Your task to perform on an android device: Open the map Image 0: 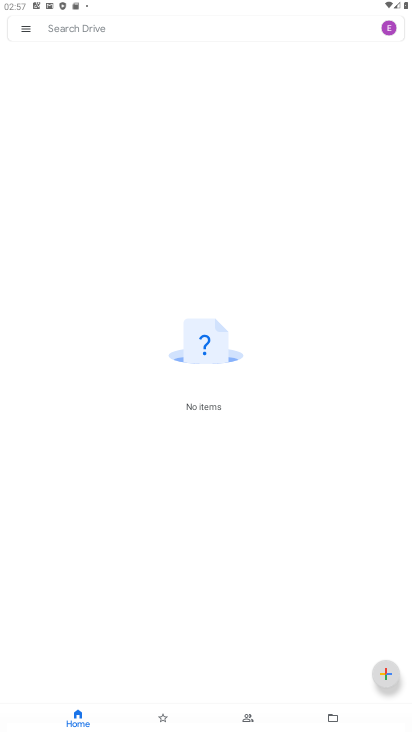
Step 0: press home button
Your task to perform on an android device: Open the map Image 1: 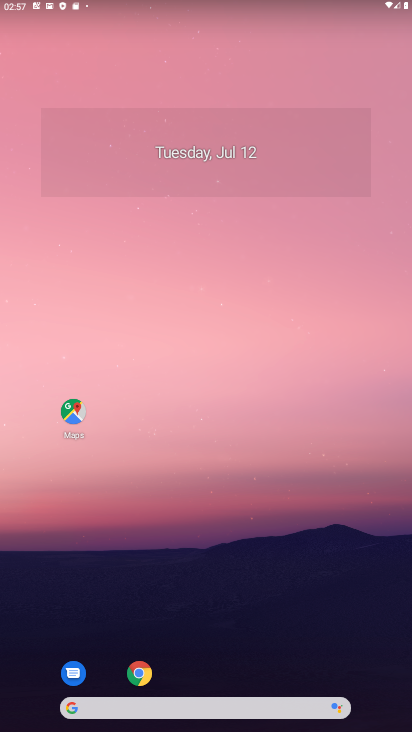
Step 1: click (74, 412)
Your task to perform on an android device: Open the map Image 2: 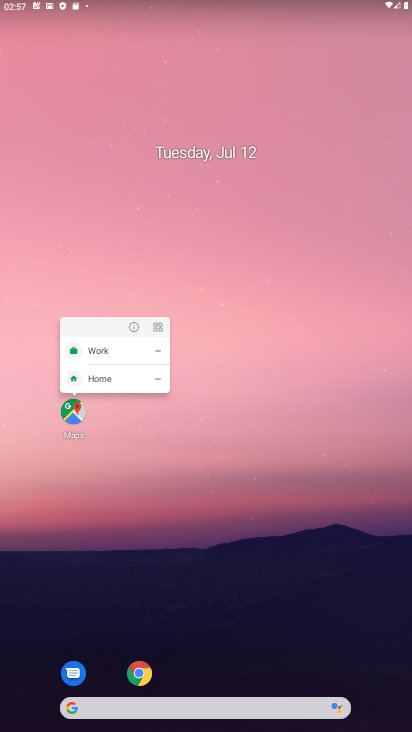
Step 2: click (74, 412)
Your task to perform on an android device: Open the map Image 3: 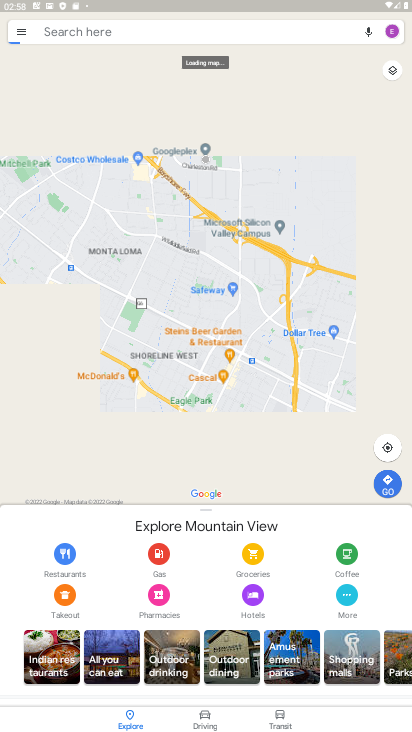
Step 3: task complete